Your task to perform on an android device: Turn on the flashlight Image 0: 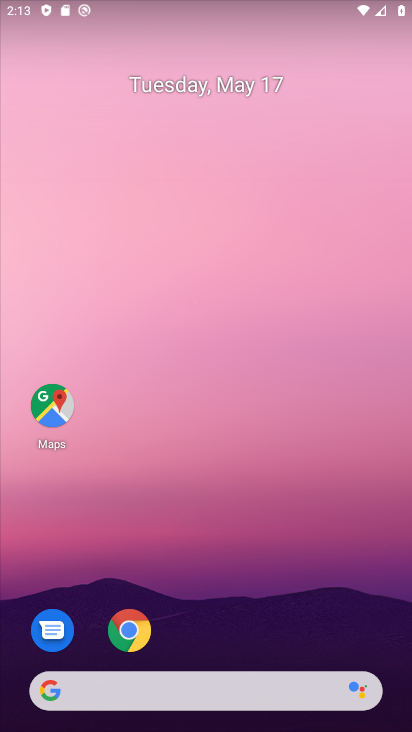
Step 0: drag from (213, 330) to (185, 217)
Your task to perform on an android device: Turn on the flashlight Image 1: 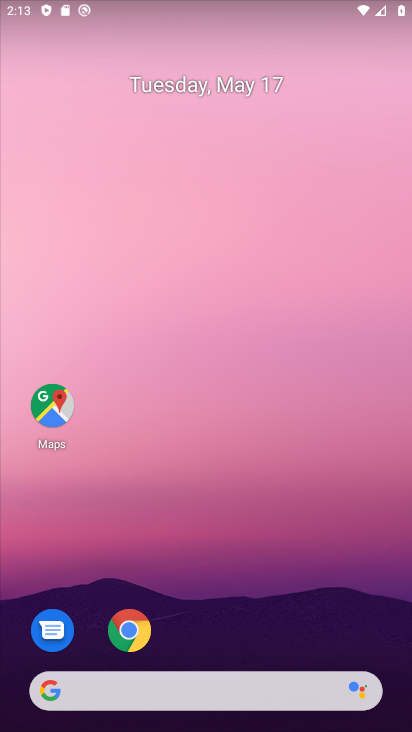
Step 1: task complete